Your task to perform on an android device: Search for custom wallets on Etsy. Image 0: 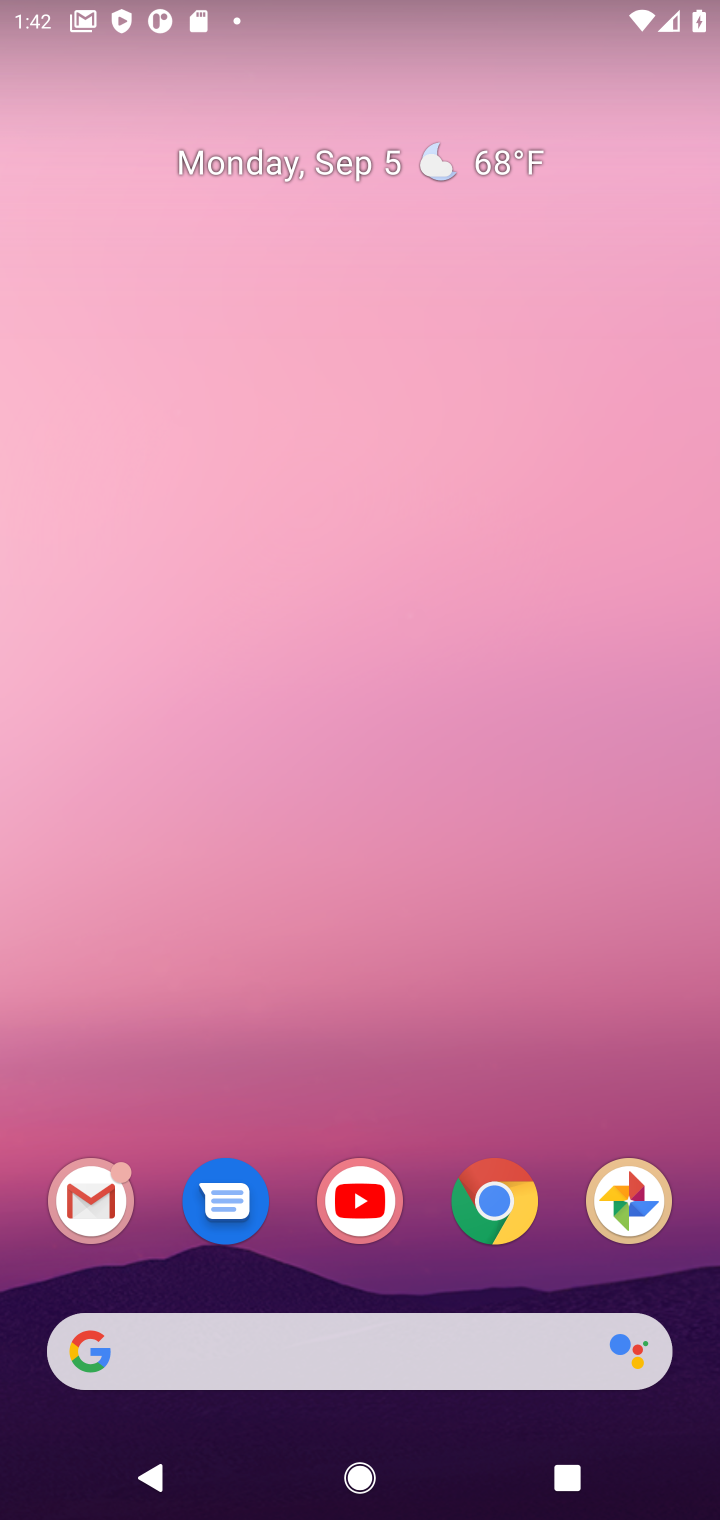
Step 0: click (501, 1219)
Your task to perform on an android device: Search for custom wallets on Etsy. Image 1: 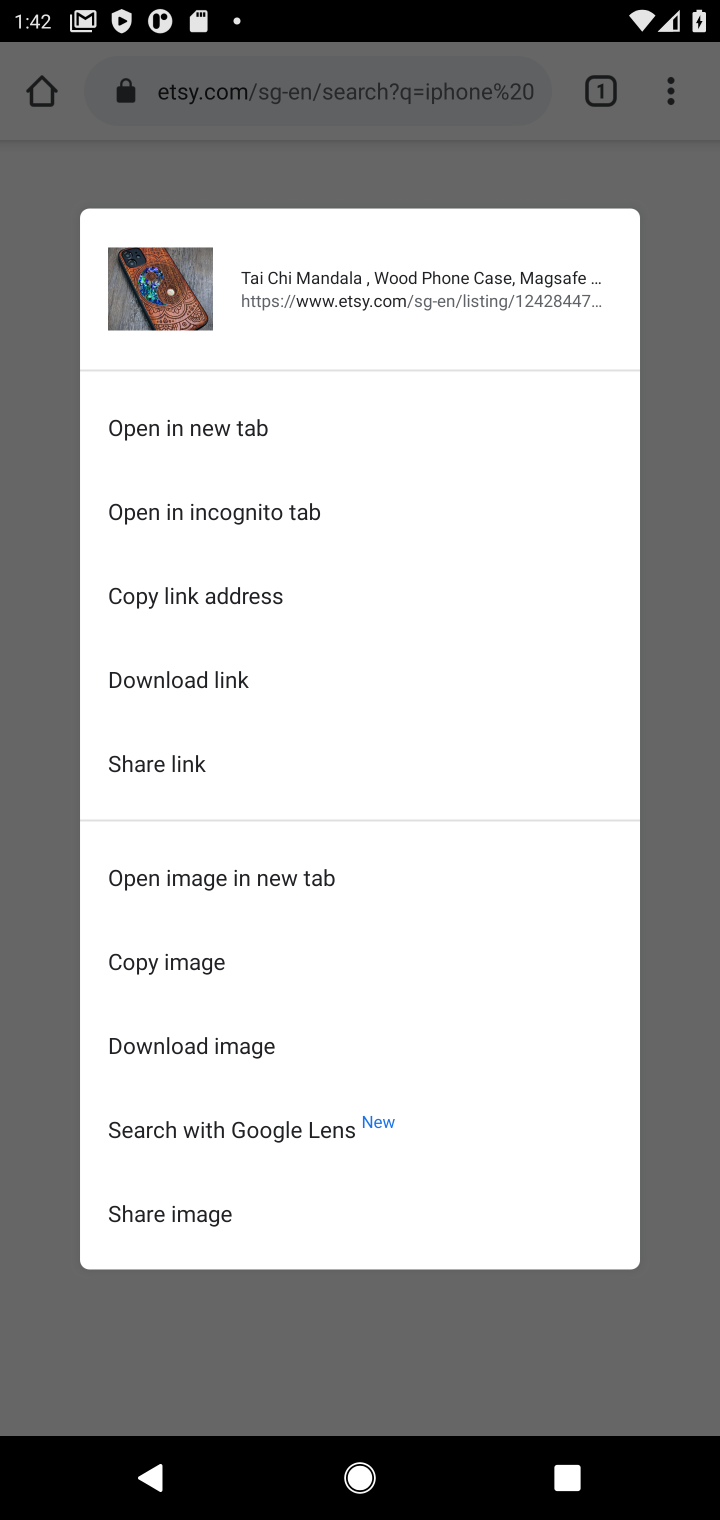
Step 1: click (482, 97)
Your task to perform on an android device: Search for custom wallets on Etsy. Image 2: 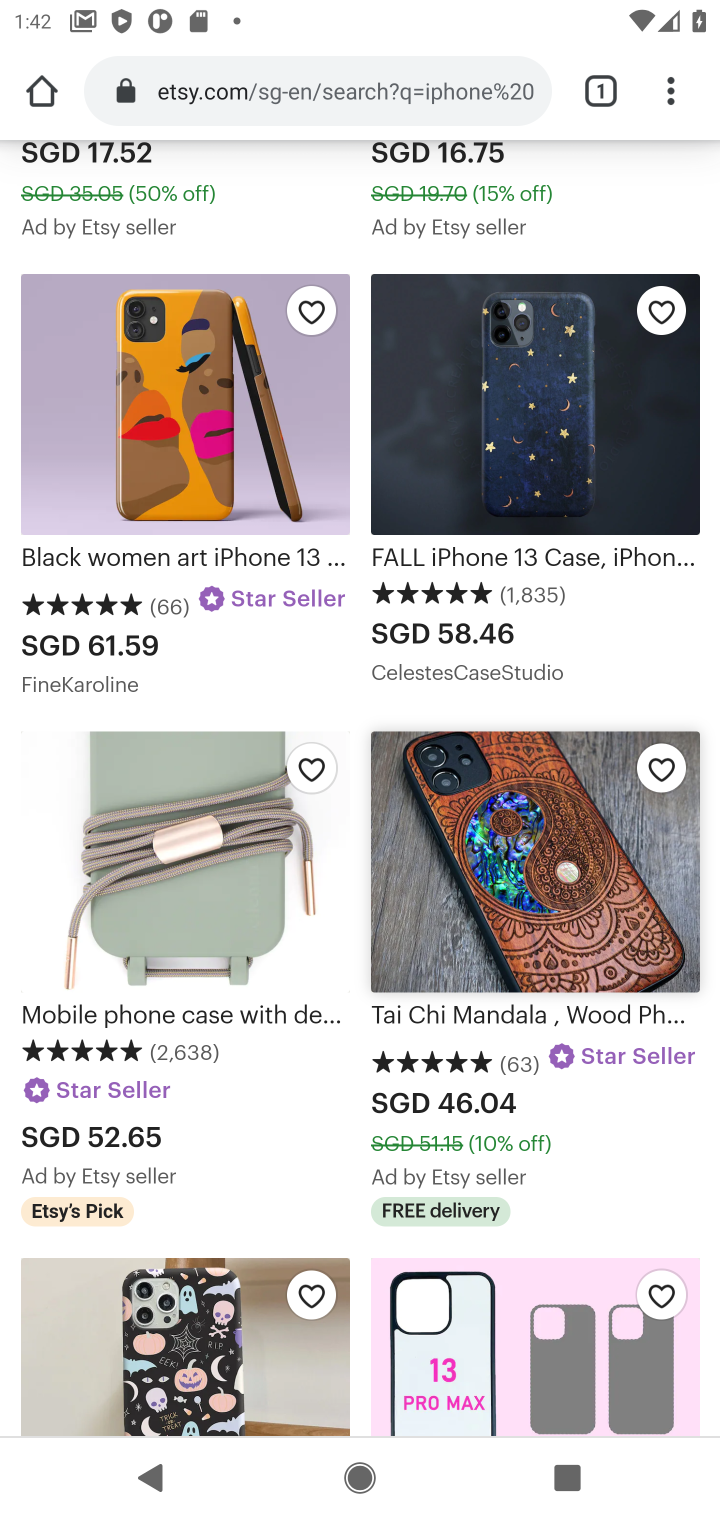
Step 2: click (447, 85)
Your task to perform on an android device: Search for custom wallets on Etsy. Image 3: 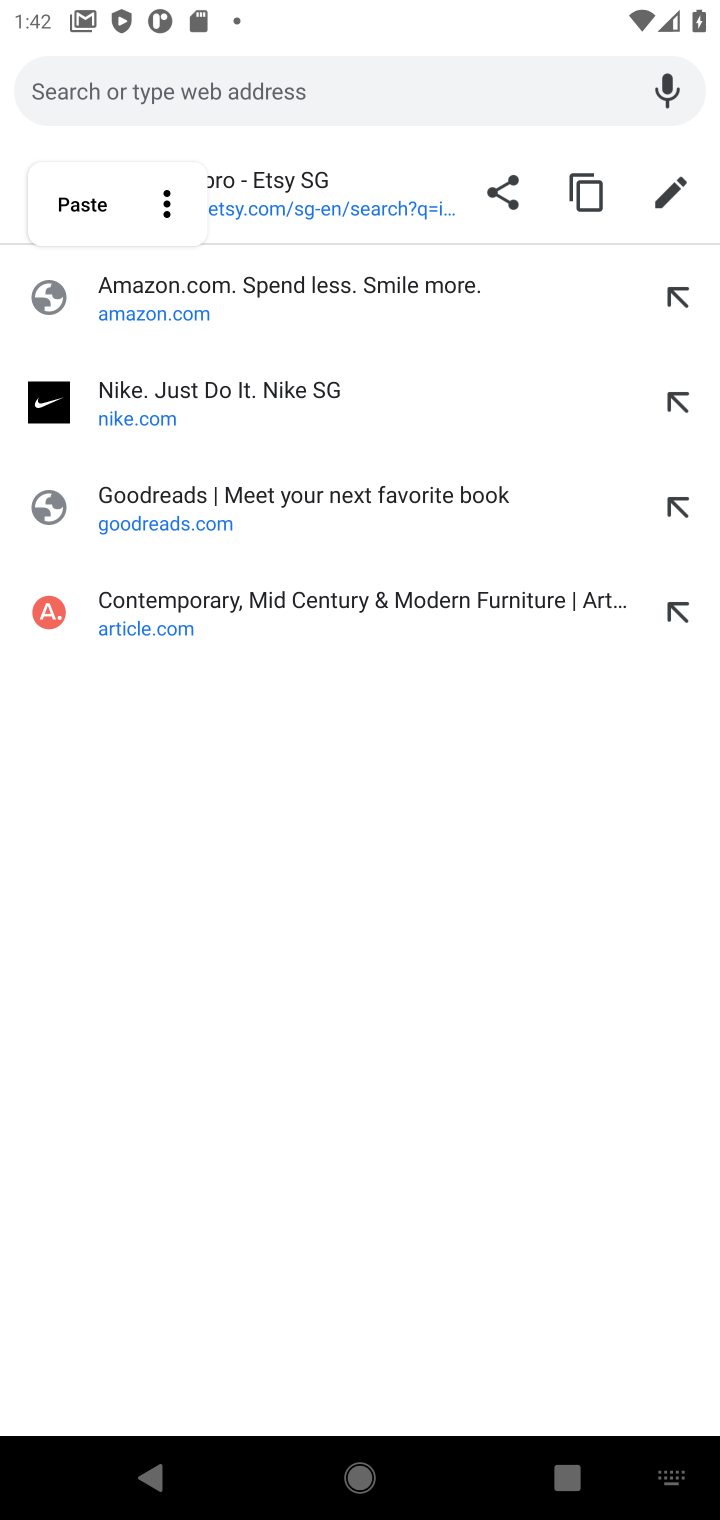
Step 3: type "Etsy"
Your task to perform on an android device: Search for custom wallets on Etsy. Image 4: 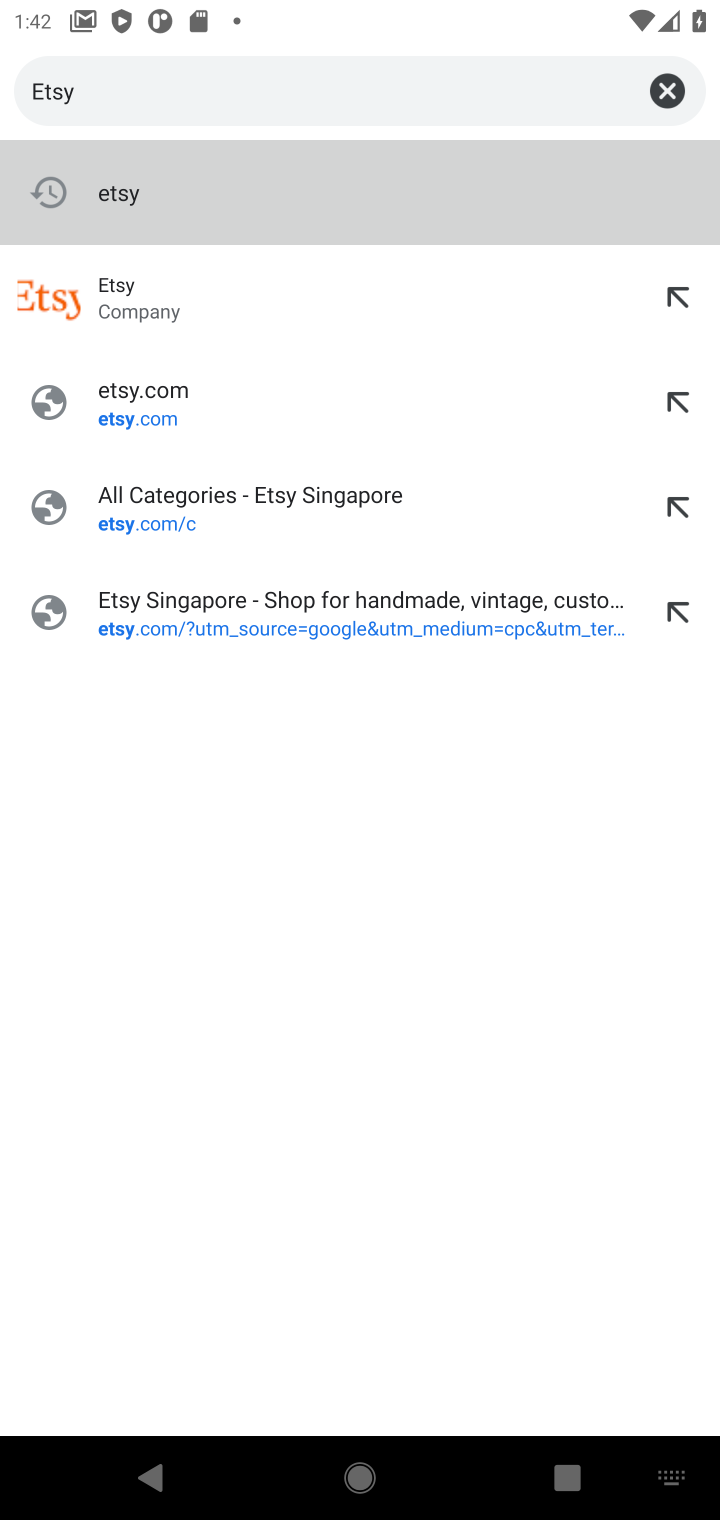
Step 4: press enter
Your task to perform on an android device: Search for custom wallets on Etsy. Image 5: 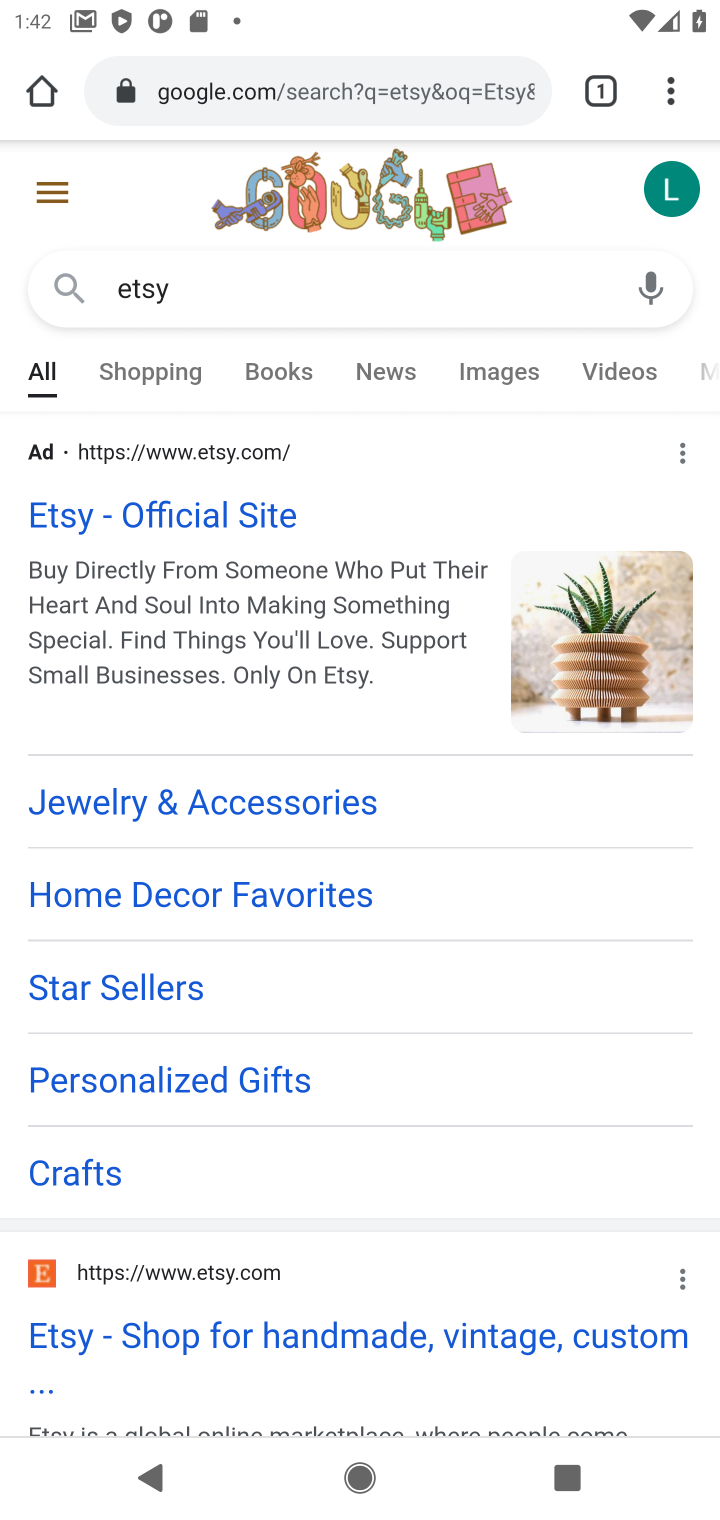
Step 5: click (231, 521)
Your task to perform on an android device: Search for custom wallets on Etsy. Image 6: 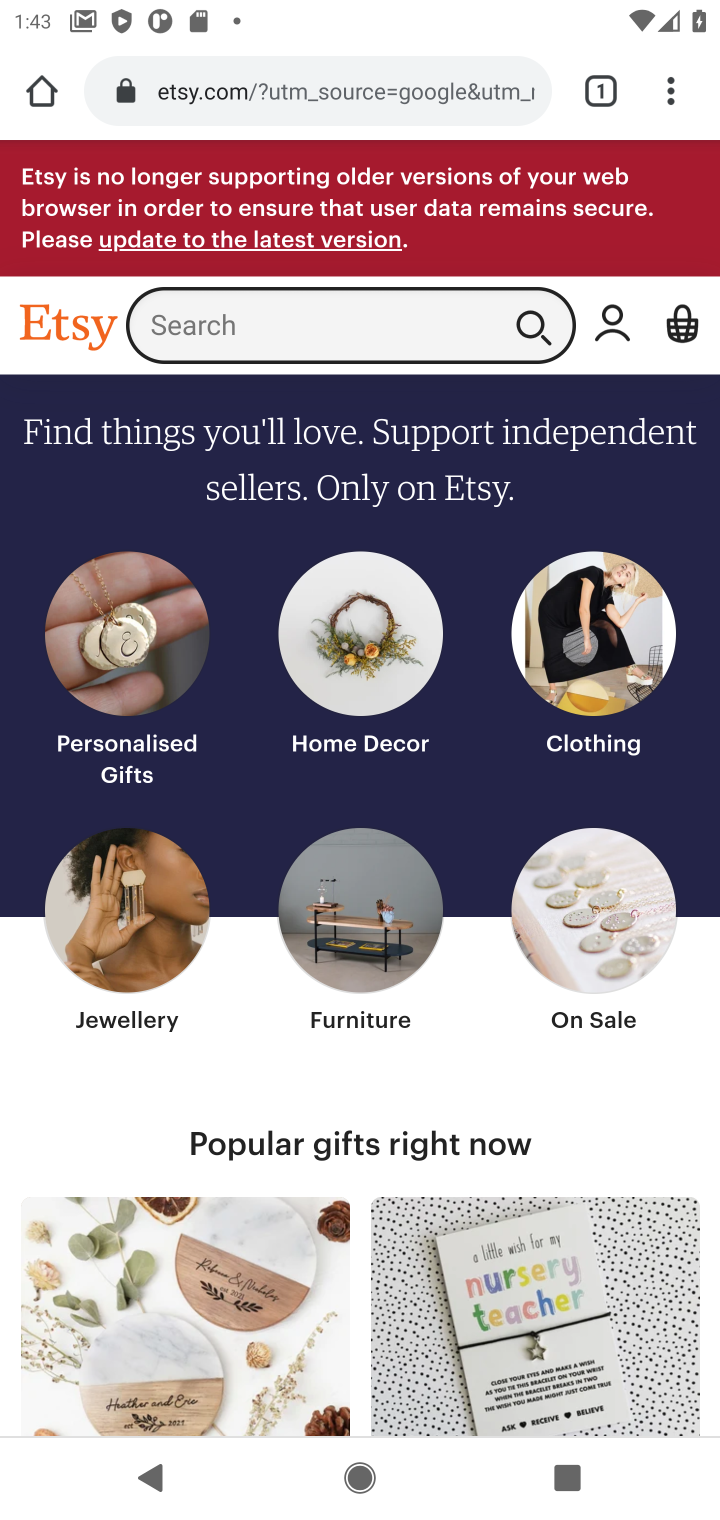
Step 6: click (188, 315)
Your task to perform on an android device: Search for custom wallets on Etsy. Image 7: 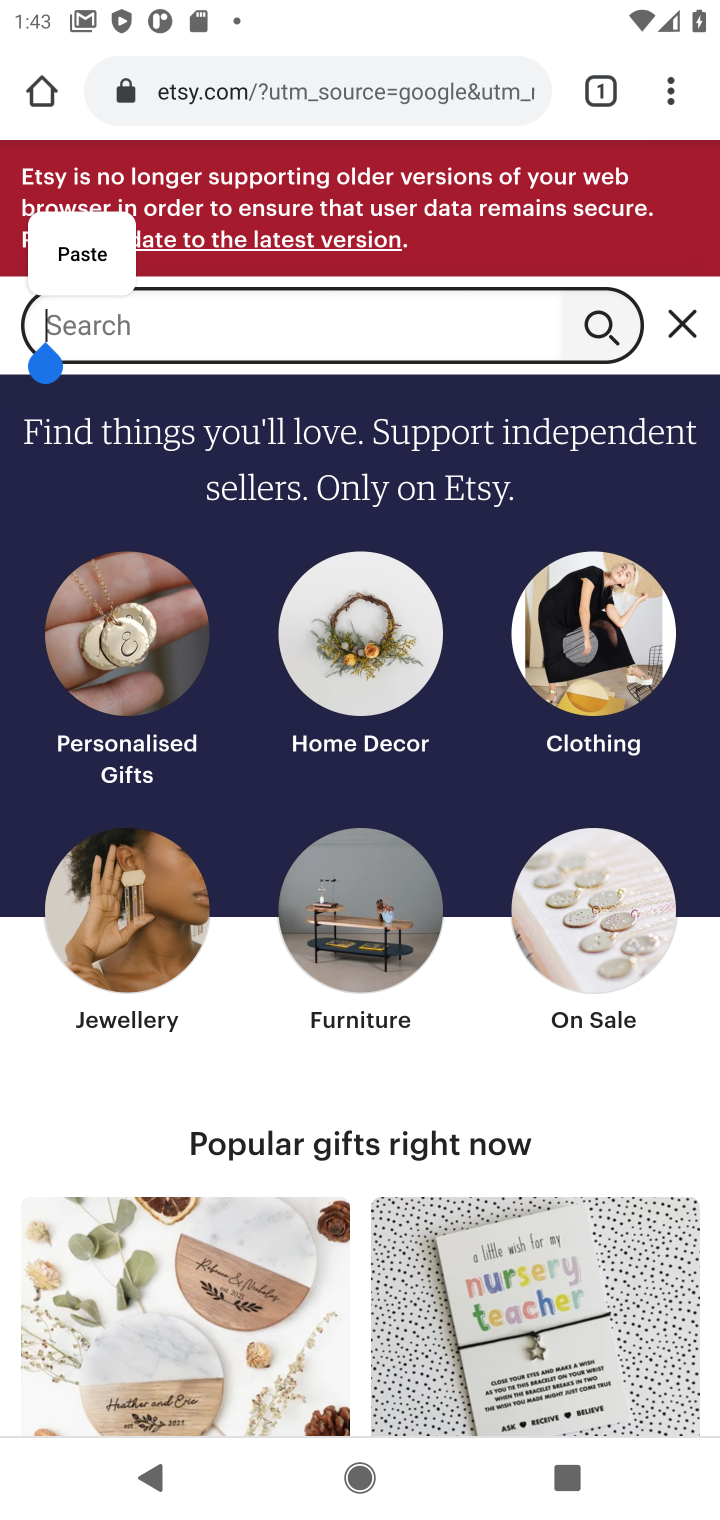
Step 7: type "custom wallets "
Your task to perform on an android device: Search for custom wallets on Etsy. Image 8: 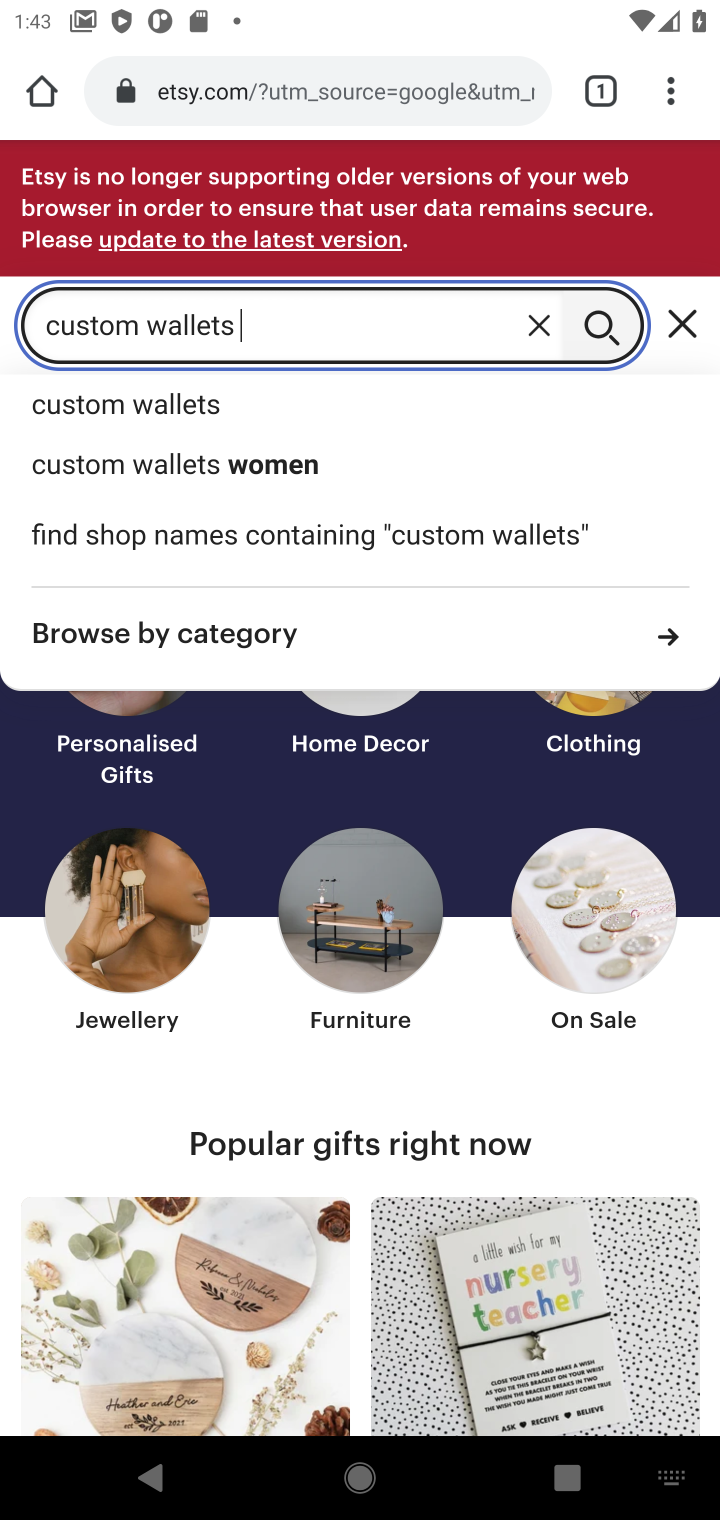
Step 8: press enter
Your task to perform on an android device: Search for custom wallets on Etsy. Image 9: 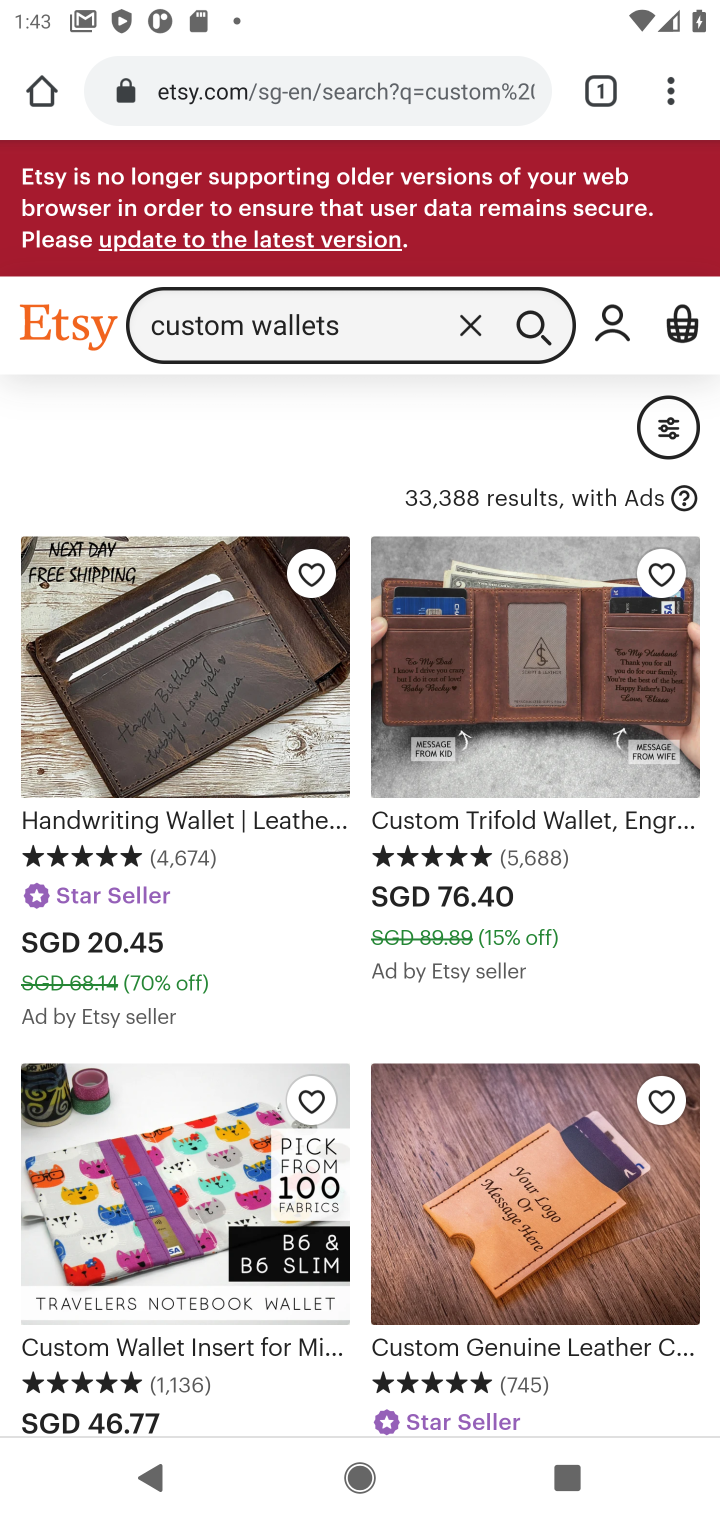
Step 9: click (534, 321)
Your task to perform on an android device: Search for custom wallets on Etsy. Image 10: 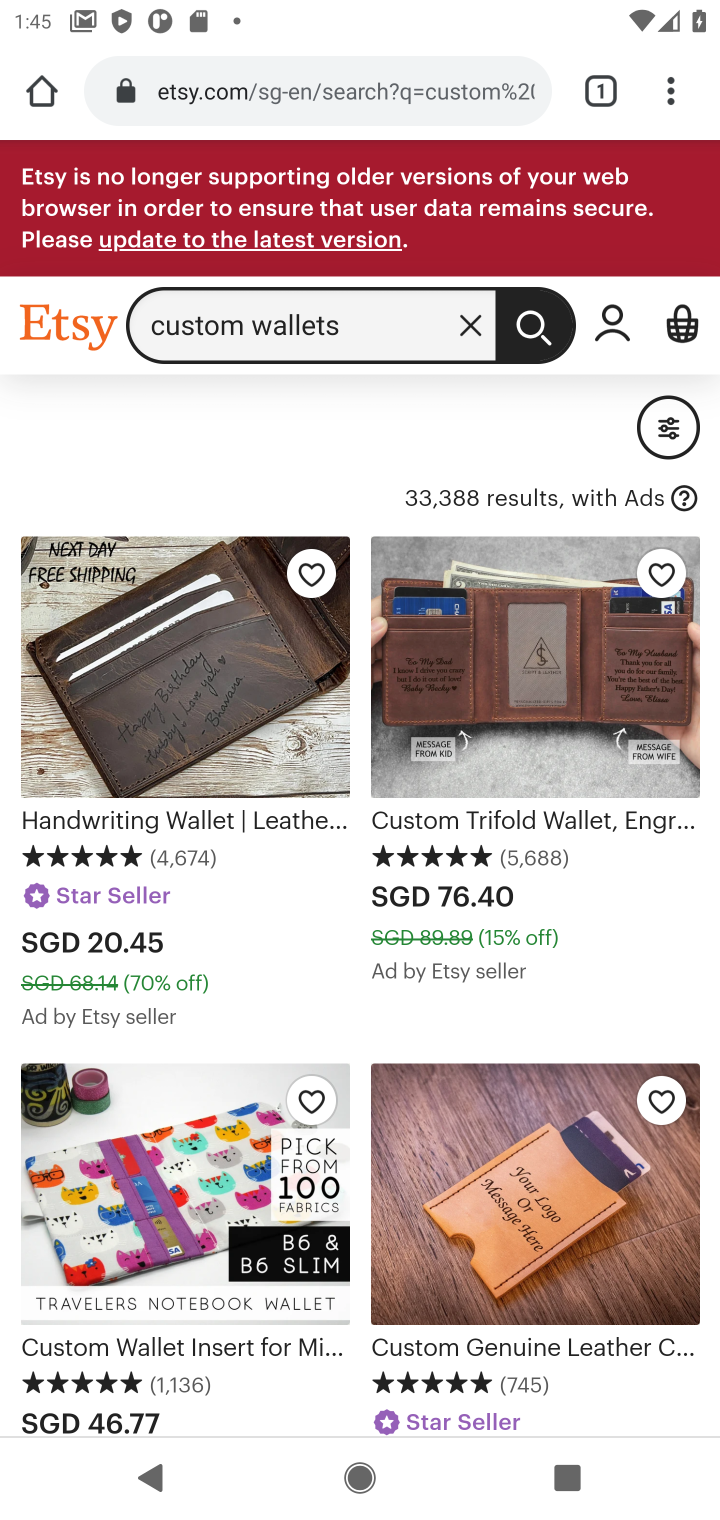
Step 10: task complete